Your task to perform on an android device: change timer sound Image 0: 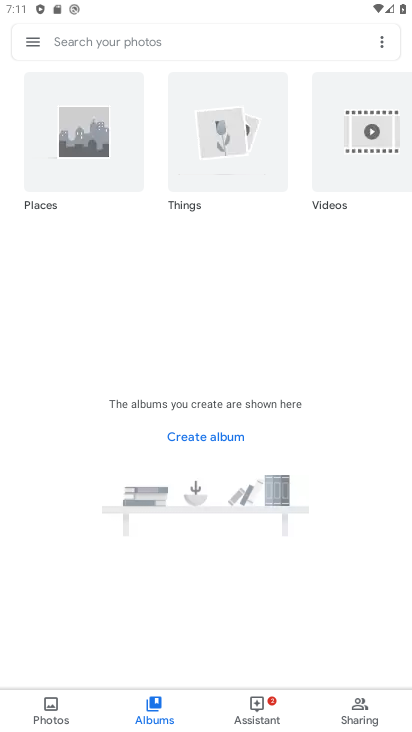
Step 0: press home button
Your task to perform on an android device: change timer sound Image 1: 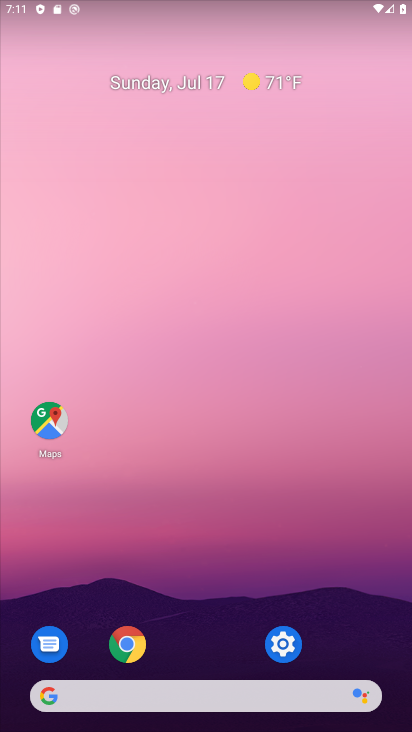
Step 1: click (284, 645)
Your task to perform on an android device: change timer sound Image 2: 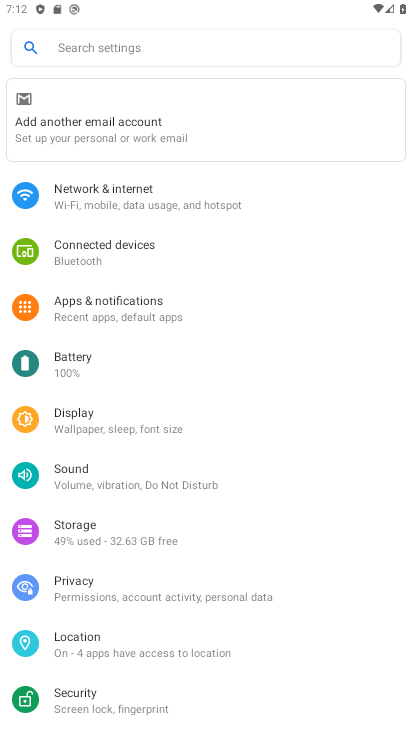
Step 2: press home button
Your task to perform on an android device: change timer sound Image 3: 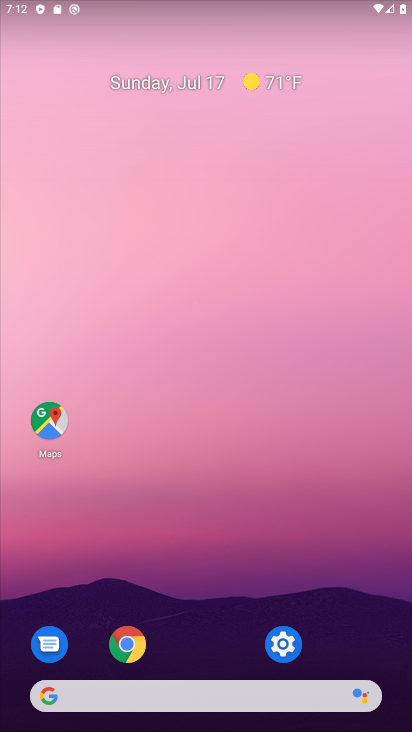
Step 3: drag from (254, 693) to (270, 76)
Your task to perform on an android device: change timer sound Image 4: 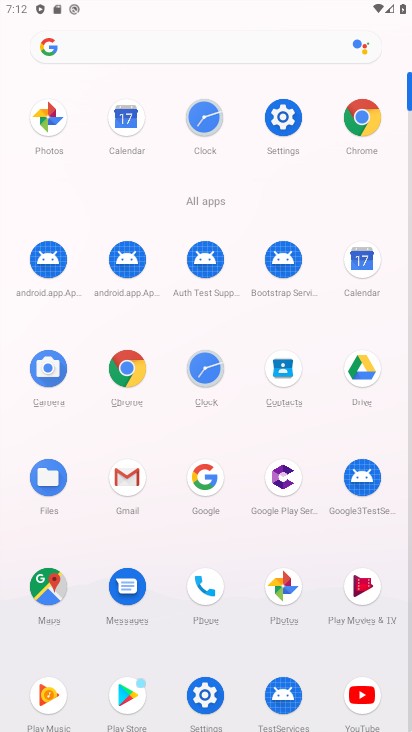
Step 4: click (135, 482)
Your task to perform on an android device: change timer sound Image 5: 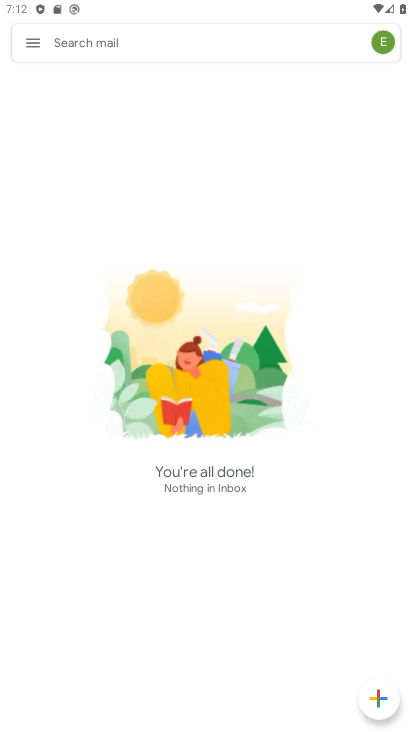
Step 5: press home button
Your task to perform on an android device: change timer sound Image 6: 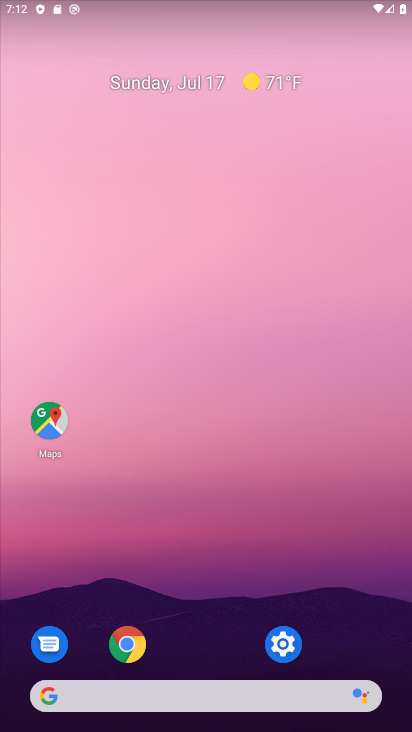
Step 6: drag from (292, 698) to (249, 76)
Your task to perform on an android device: change timer sound Image 7: 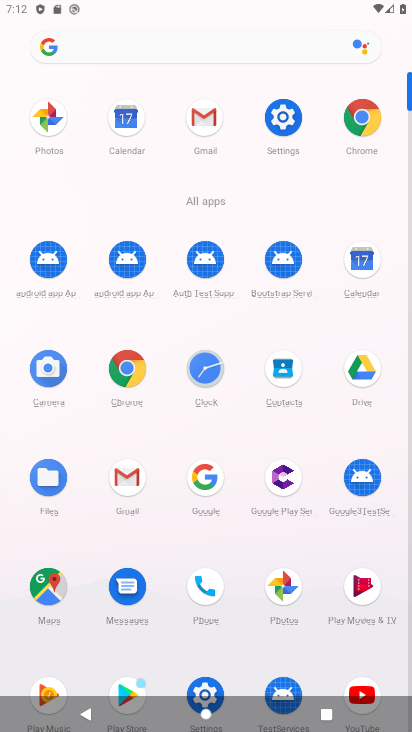
Step 7: click (219, 356)
Your task to perform on an android device: change timer sound Image 8: 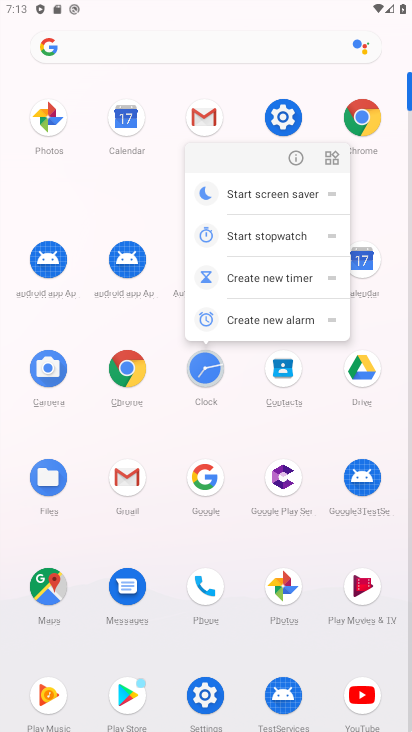
Step 8: click (210, 373)
Your task to perform on an android device: change timer sound Image 9: 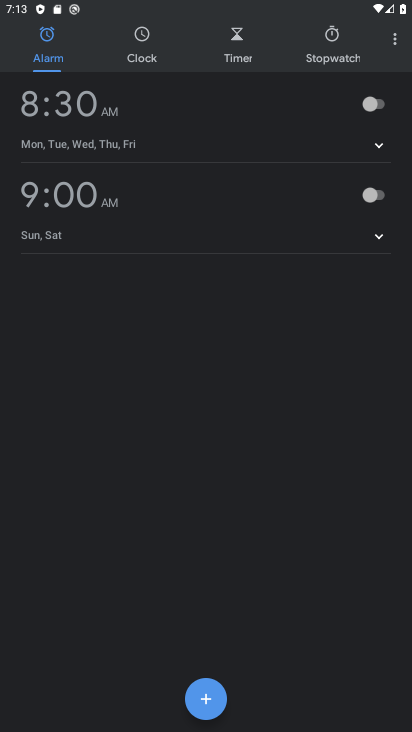
Step 9: click (397, 48)
Your task to perform on an android device: change timer sound Image 10: 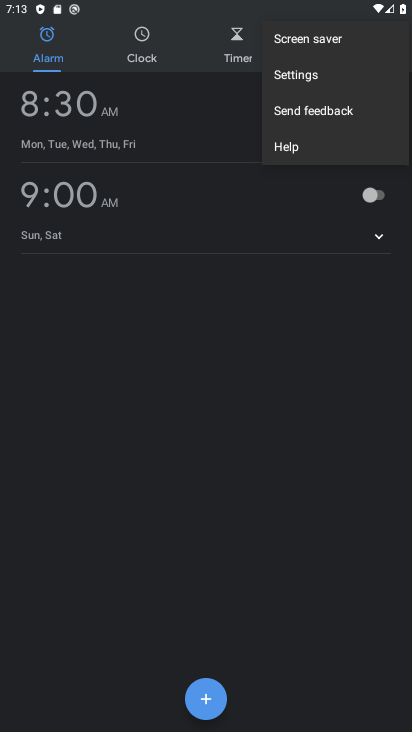
Step 10: click (311, 74)
Your task to perform on an android device: change timer sound Image 11: 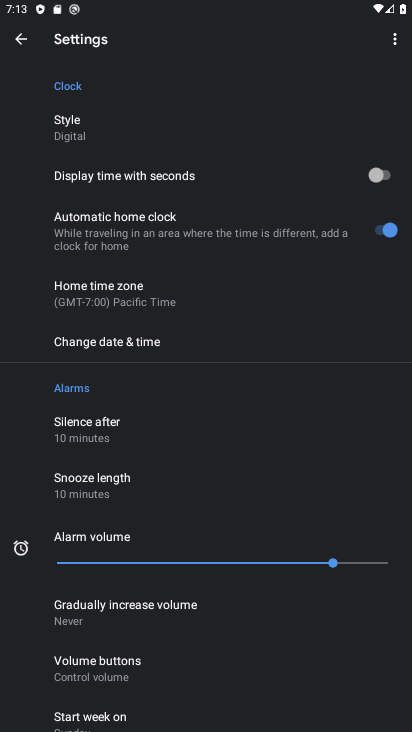
Step 11: drag from (166, 659) to (198, 474)
Your task to perform on an android device: change timer sound Image 12: 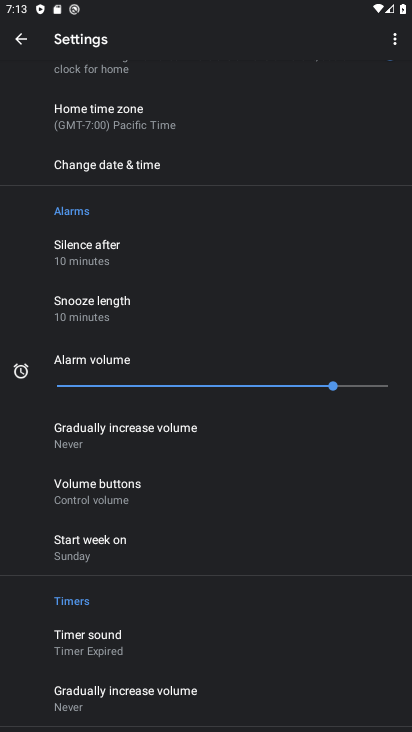
Step 12: click (137, 630)
Your task to perform on an android device: change timer sound Image 13: 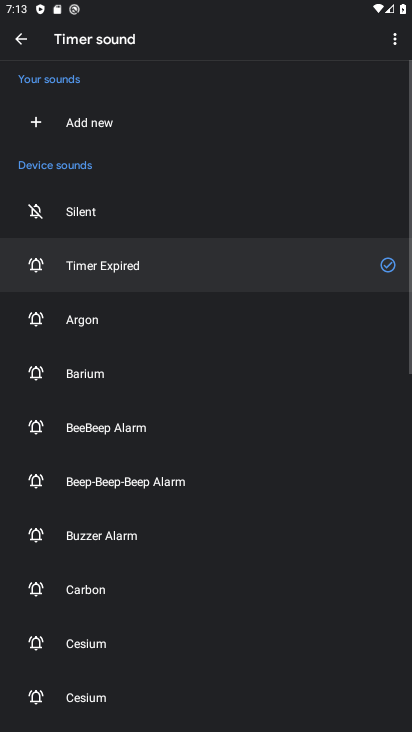
Step 13: click (141, 475)
Your task to perform on an android device: change timer sound Image 14: 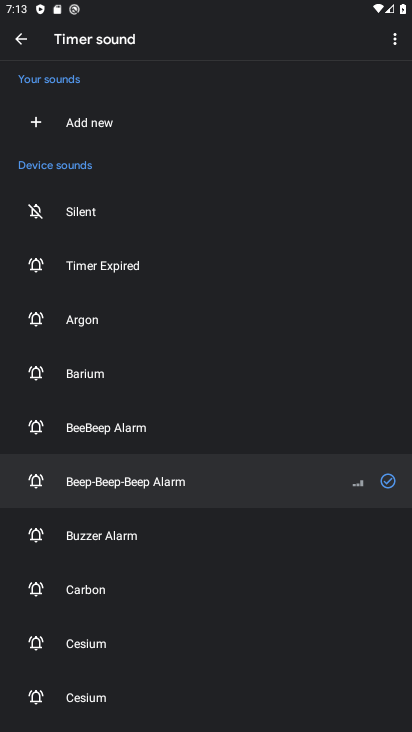
Step 14: task complete